Your task to perform on an android device: turn off wifi Image 0: 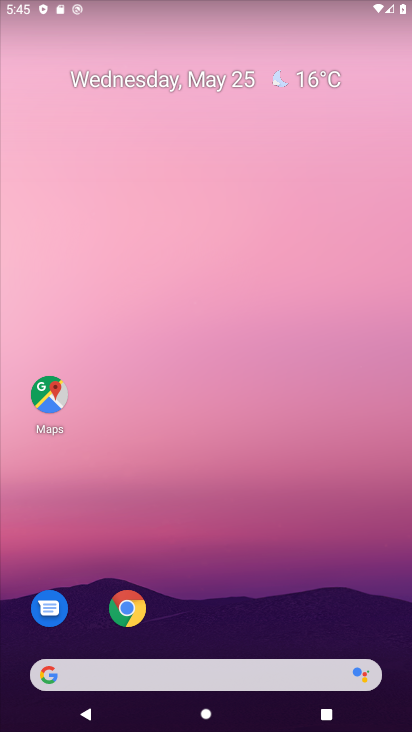
Step 0: drag from (149, 602) to (186, 84)
Your task to perform on an android device: turn off wifi Image 1: 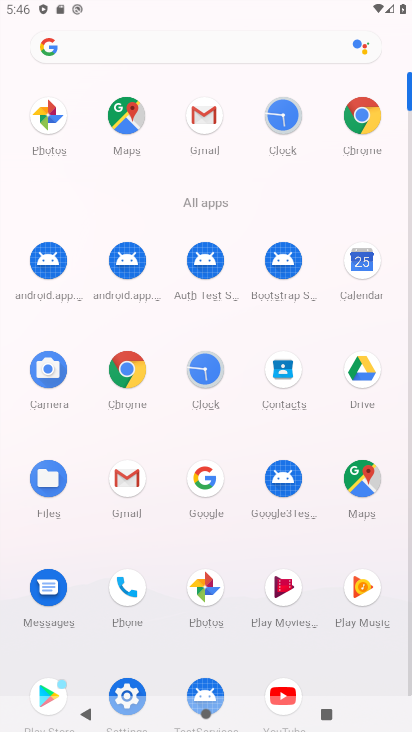
Step 1: click (129, 689)
Your task to perform on an android device: turn off wifi Image 2: 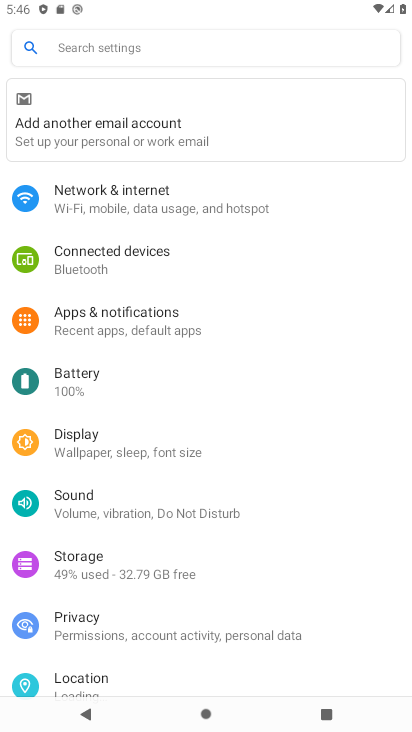
Step 2: click (194, 201)
Your task to perform on an android device: turn off wifi Image 3: 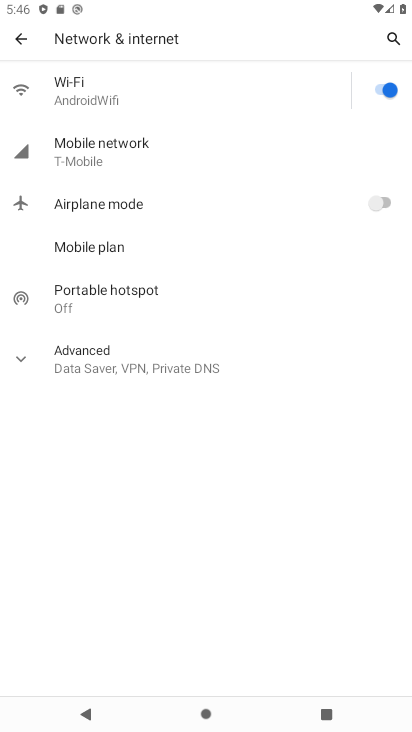
Step 3: click (380, 88)
Your task to perform on an android device: turn off wifi Image 4: 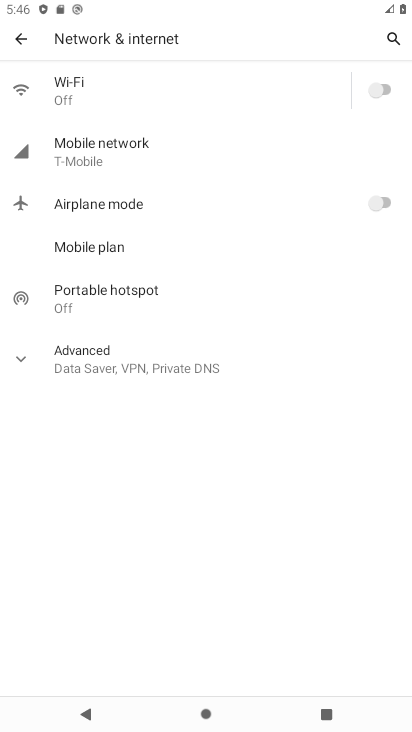
Step 4: task complete